Your task to perform on an android device: change the clock display to show seconds Image 0: 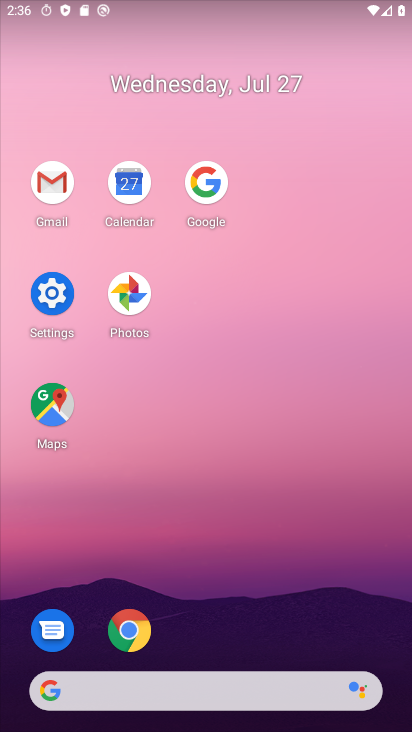
Step 0: drag from (364, 481) to (375, 74)
Your task to perform on an android device: change the clock display to show seconds Image 1: 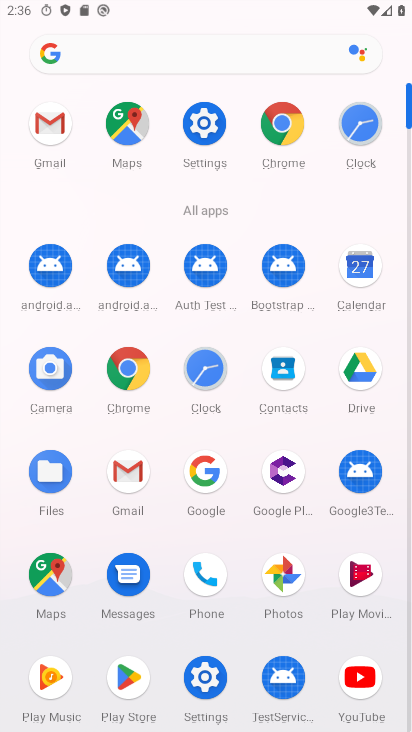
Step 1: drag from (200, 358) to (284, 183)
Your task to perform on an android device: change the clock display to show seconds Image 2: 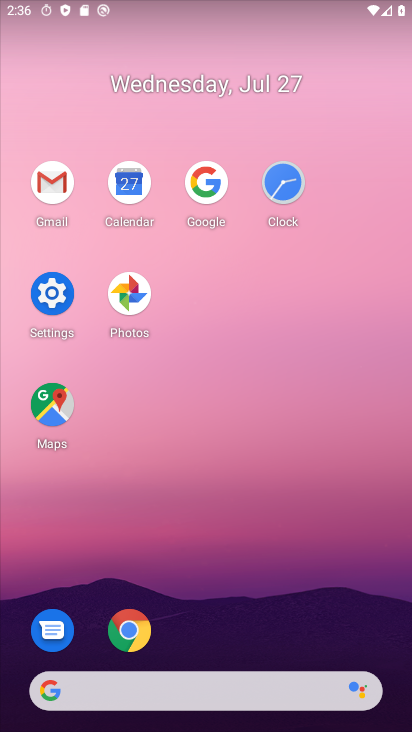
Step 2: click (292, 180)
Your task to perform on an android device: change the clock display to show seconds Image 3: 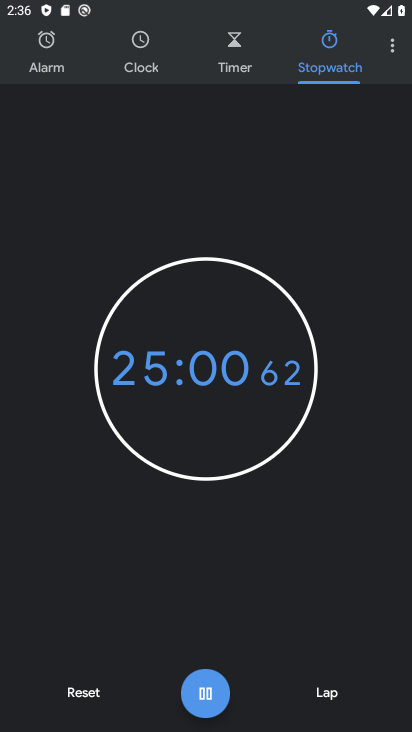
Step 3: click (400, 37)
Your task to perform on an android device: change the clock display to show seconds Image 4: 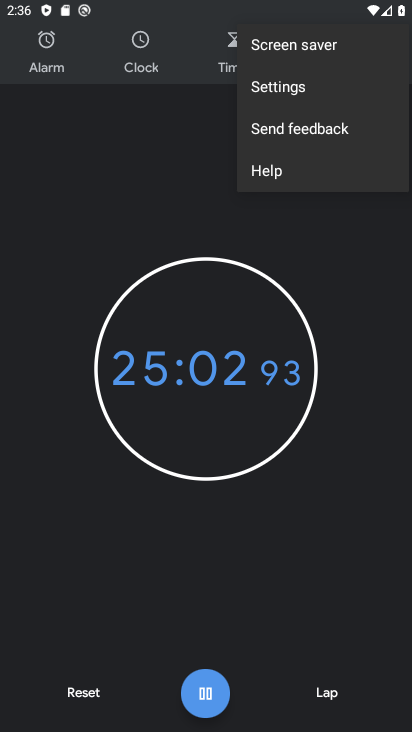
Step 4: click (281, 87)
Your task to perform on an android device: change the clock display to show seconds Image 5: 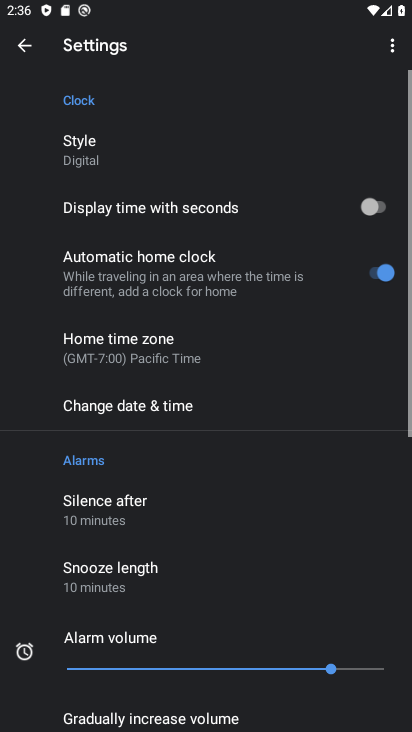
Step 5: click (353, 201)
Your task to perform on an android device: change the clock display to show seconds Image 6: 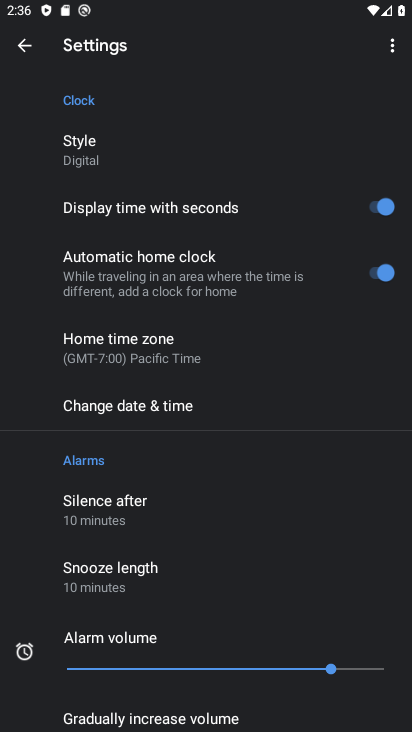
Step 6: task complete